Your task to perform on an android device: refresh tabs in the chrome app Image 0: 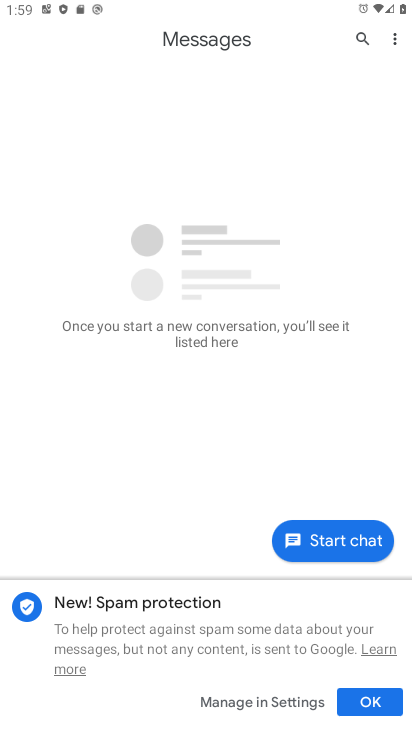
Step 0: press home button
Your task to perform on an android device: refresh tabs in the chrome app Image 1: 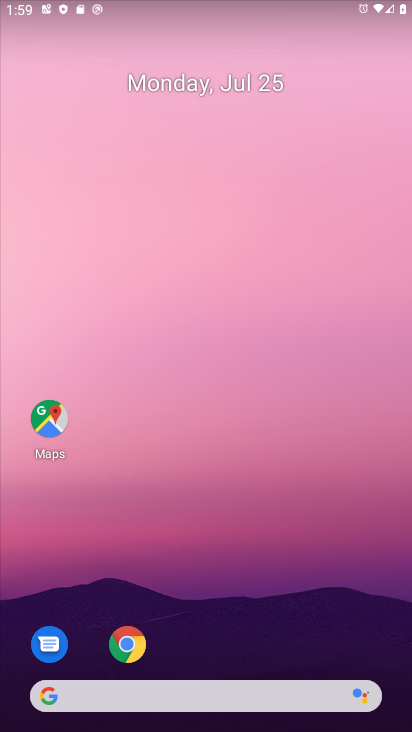
Step 1: drag from (402, 644) to (266, 1)
Your task to perform on an android device: refresh tabs in the chrome app Image 2: 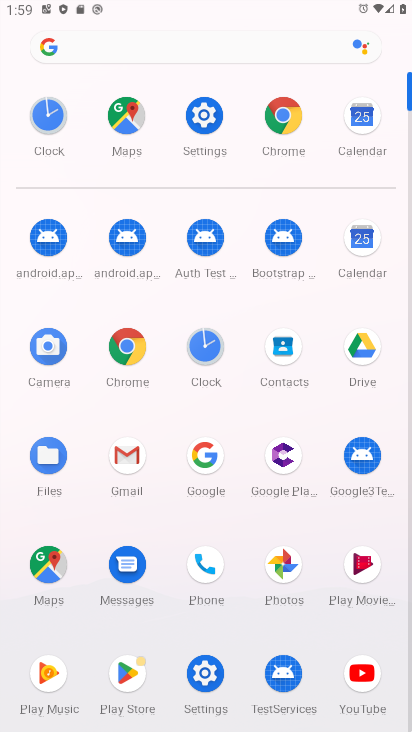
Step 2: click (115, 348)
Your task to perform on an android device: refresh tabs in the chrome app Image 3: 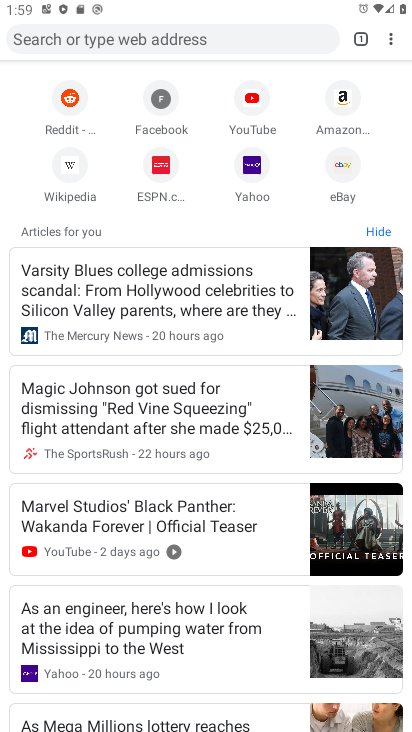
Step 3: click (388, 36)
Your task to perform on an android device: refresh tabs in the chrome app Image 4: 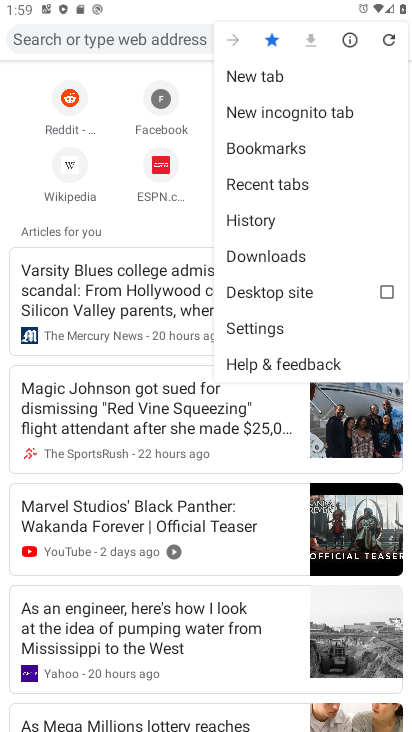
Step 4: click (388, 36)
Your task to perform on an android device: refresh tabs in the chrome app Image 5: 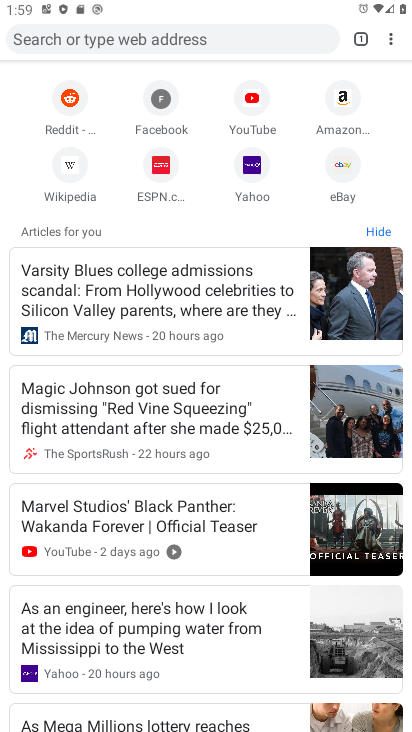
Step 5: task complete